Your task to perform on an android device: check out phone information Image 0: 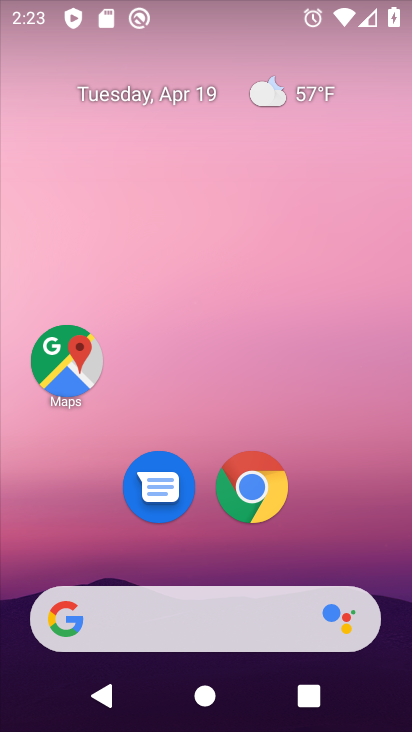
Step 0: drag from (363, 513) to (361, 113)
Your task to perform on an android device: check out phone information Image 1: 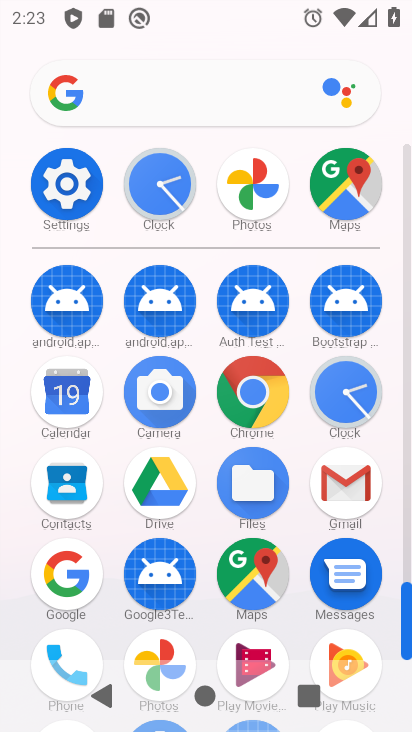
Step 1: drag from (212, 532) to (211, 298)
Your task to perform on an android device: check out phone information Image 2: 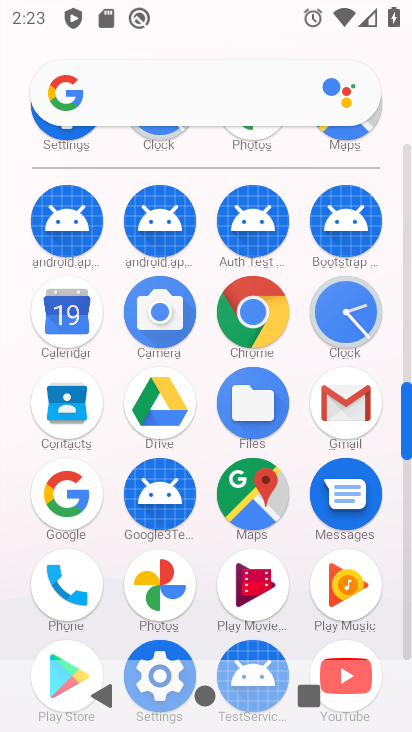
Step 2: click (165, 648)
Your task to perform on an android device: check out phone information Image 3: 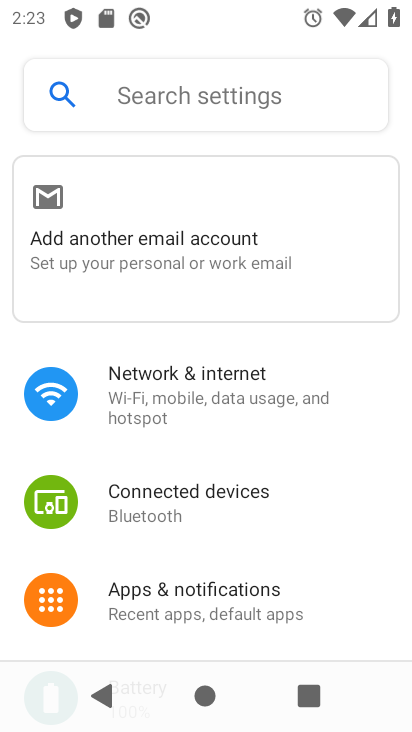
Step 3: drag from (345, 630) to (346, 225)
Your task to perform on an android device: check out phone information Image 4: 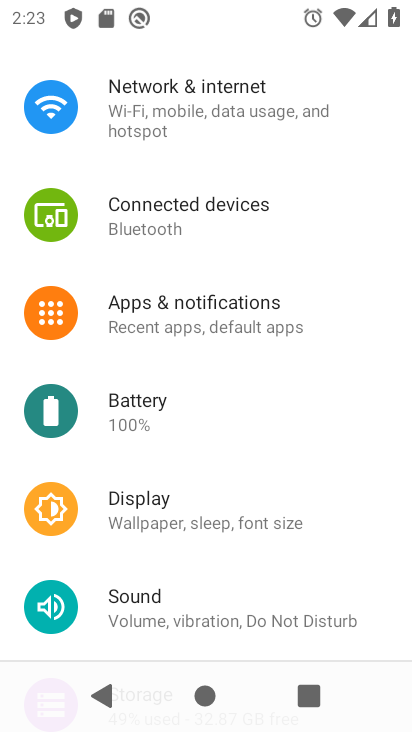
Step 4: drag from (344, 518) to (334, 237)
Your task to perform on an android device: check out phone information Image 5: 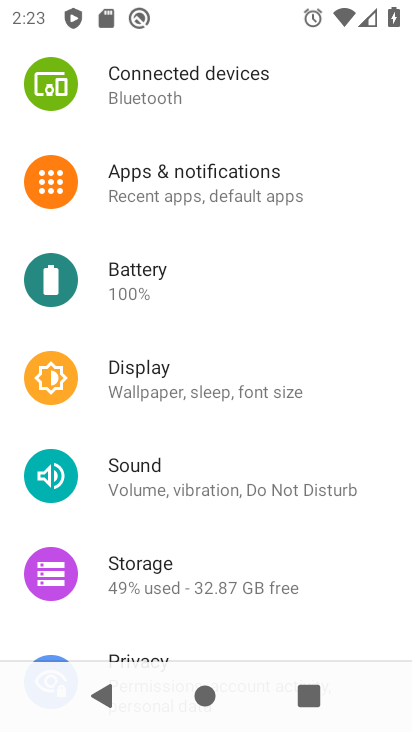
Step 5: drag from (311, 589) to (318, 242)
Your task to perform on an android device: check out phone information Image 6: 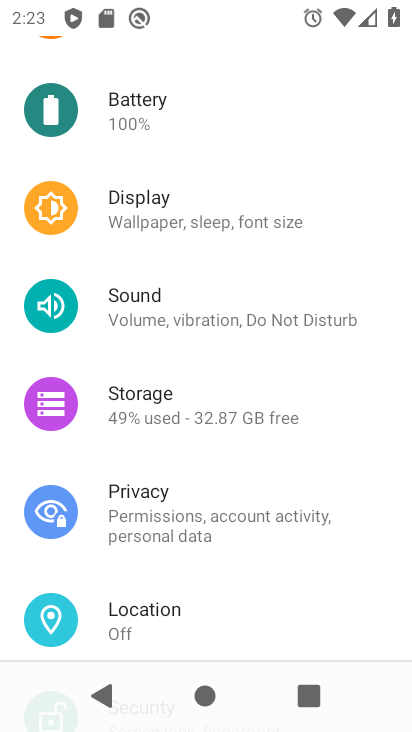
Step 6: drag from (301, 584) to (296, 153)
Your task to perform on an android device: check out phone information Image 7: 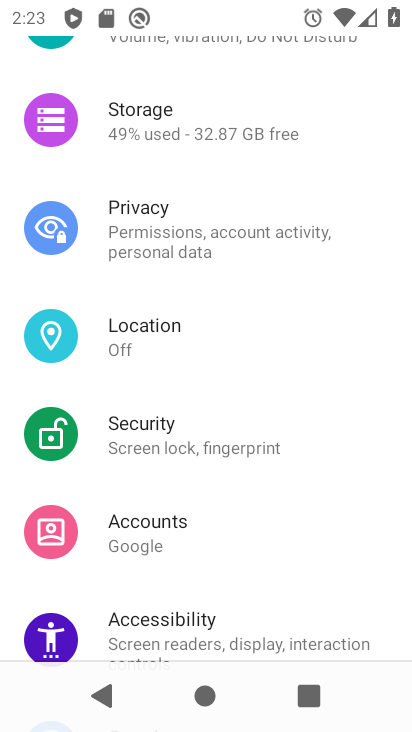
Step 7: drag from (256, 527) to (307, 139)
Your task to perform on an android device: check out phone information Image 8: 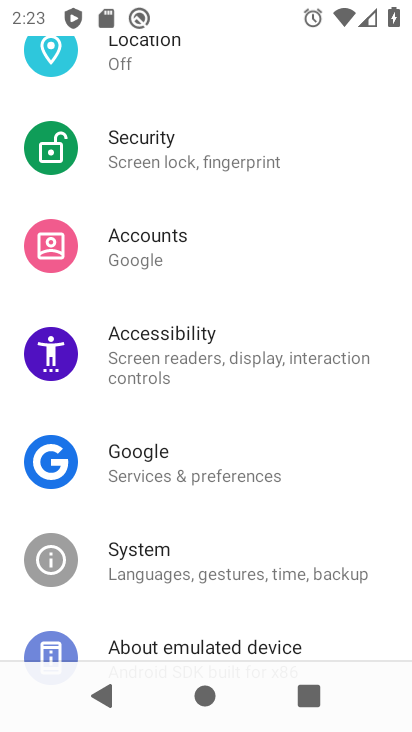
Step 8: drag from (305, 607) to (316, 250)
Your task to perform on an android device: check out phone information Image 9: 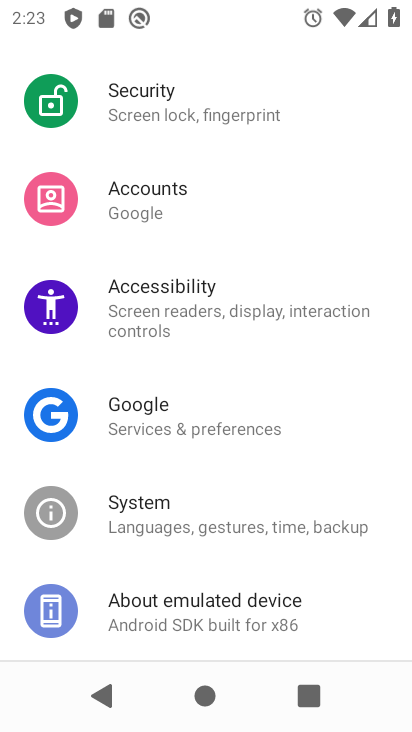
Step 9: click (275, 612)
Your task to perform on an android device: check out phone information Image 10: 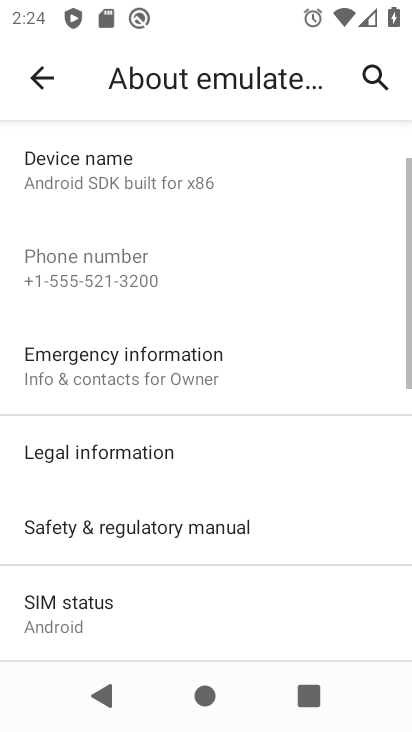
Step 10: task complete